Your task to perform on an android device: clear history in the chrome app Image 0: 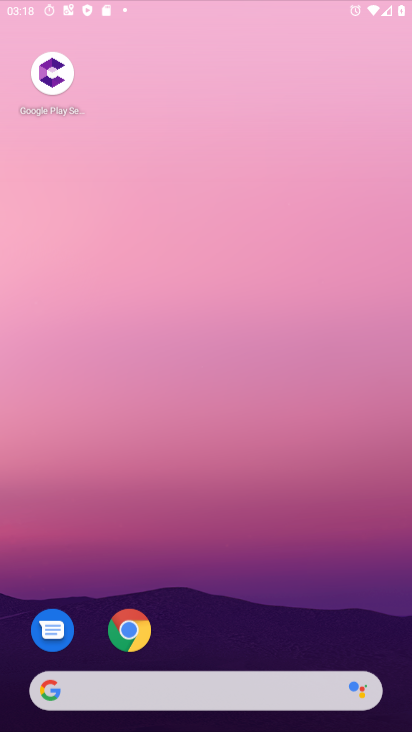
Step 0: click (246, 163)
Your task to perform on an android device: clear history in the chrome app Image 1: 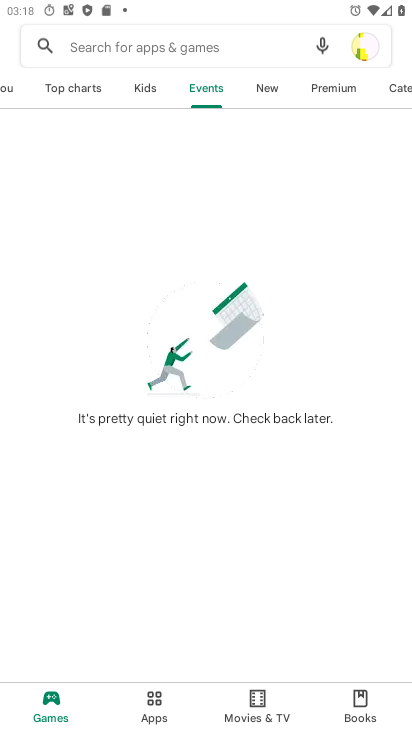
Step 1: press home button
Your task to perform on an android device: clear history in the chrome app Image 2: 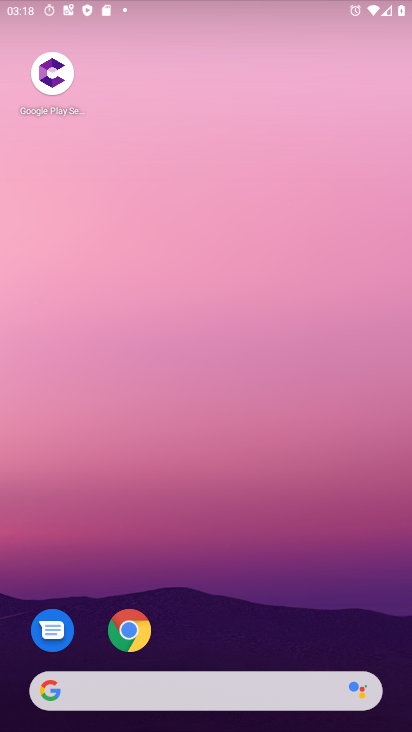
Step 2: drag from (226, 592) to (207, 209)
Your task to perform on an android device: clear history in the chrome app Image 3: 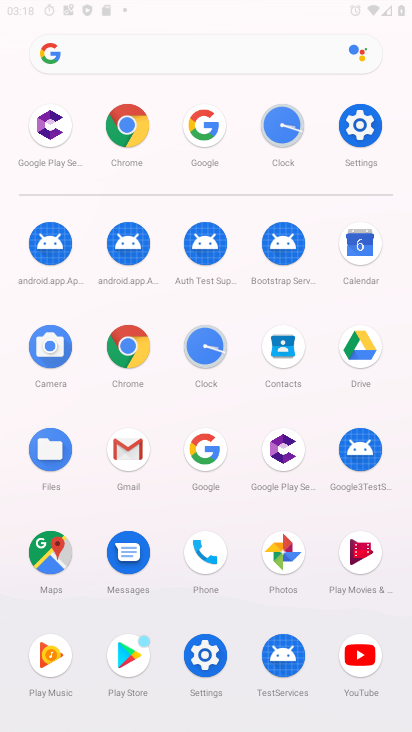
Step 3: click (139, 123)
Your task to perform on an android device: clear history in the chrome app Image 4: 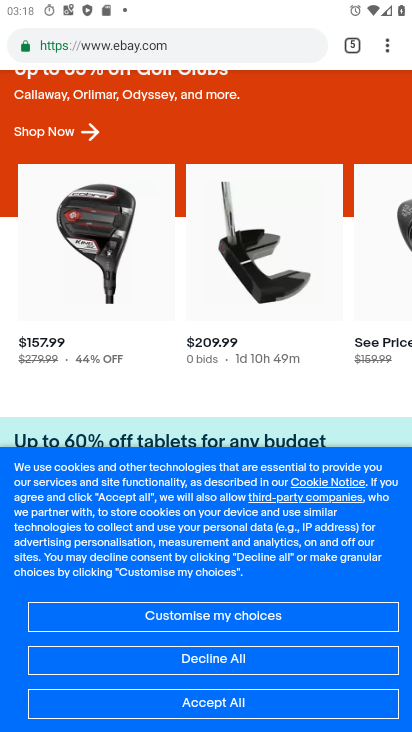
Step 4: drag from (382, 38) to (240, 245)
Your task to perform on an android device: clear history in the chrome app Image 5: 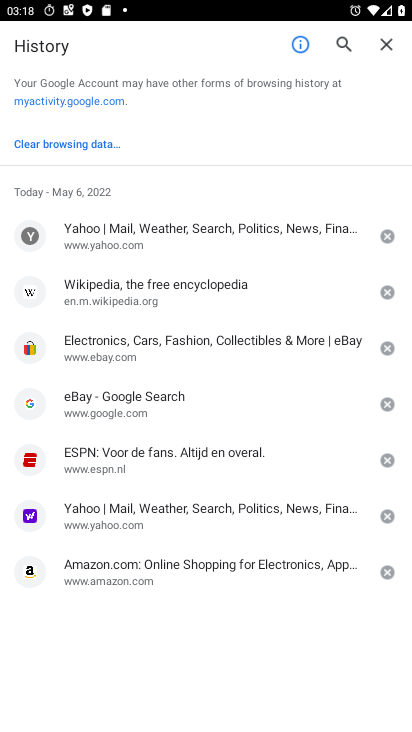
Step 5: click (40, 139)
Your task to perform on an android device: clear history in the chrome app Image 6: 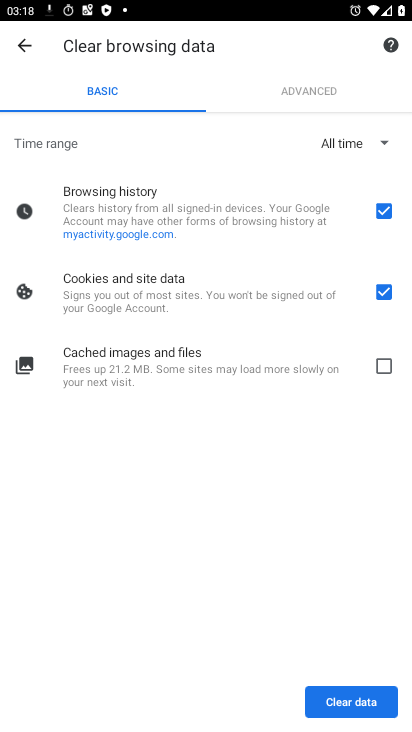
Step 6: click (367, 695)
Your task to perform on an android device: clear history in the chrome app Image 7: 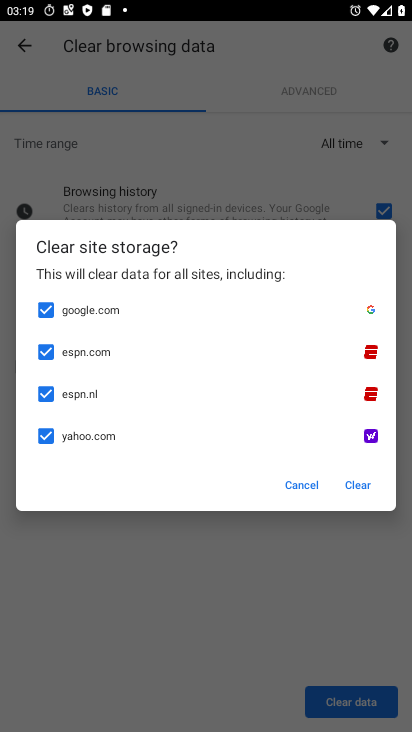
Step 7: click (350, 489)
Your task to perform on an android device: clear history in the chrome app Image 8: 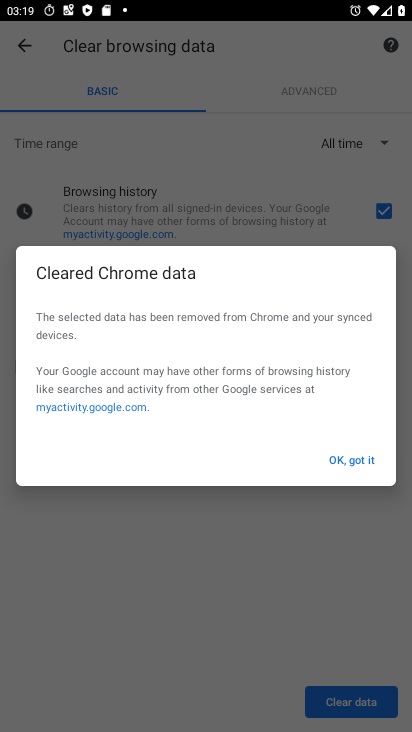
Step 8: click (354, 460)
Your task to perform on an android device: clear history in the chrome app Image 9: 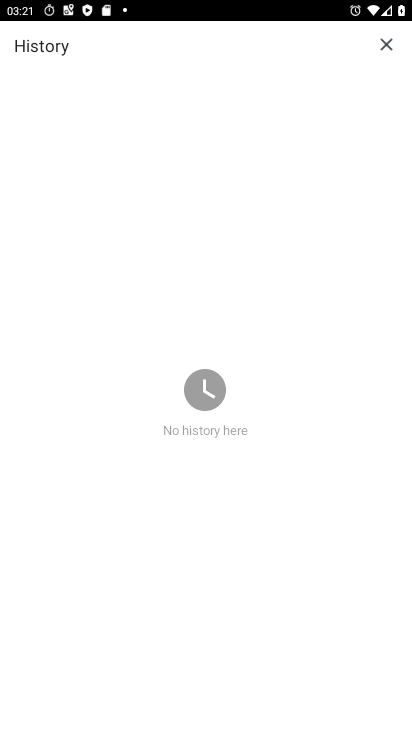
Step 9: task complete